Your task to perform on an android device: delete the emails in spam in the gmail app Image 0: 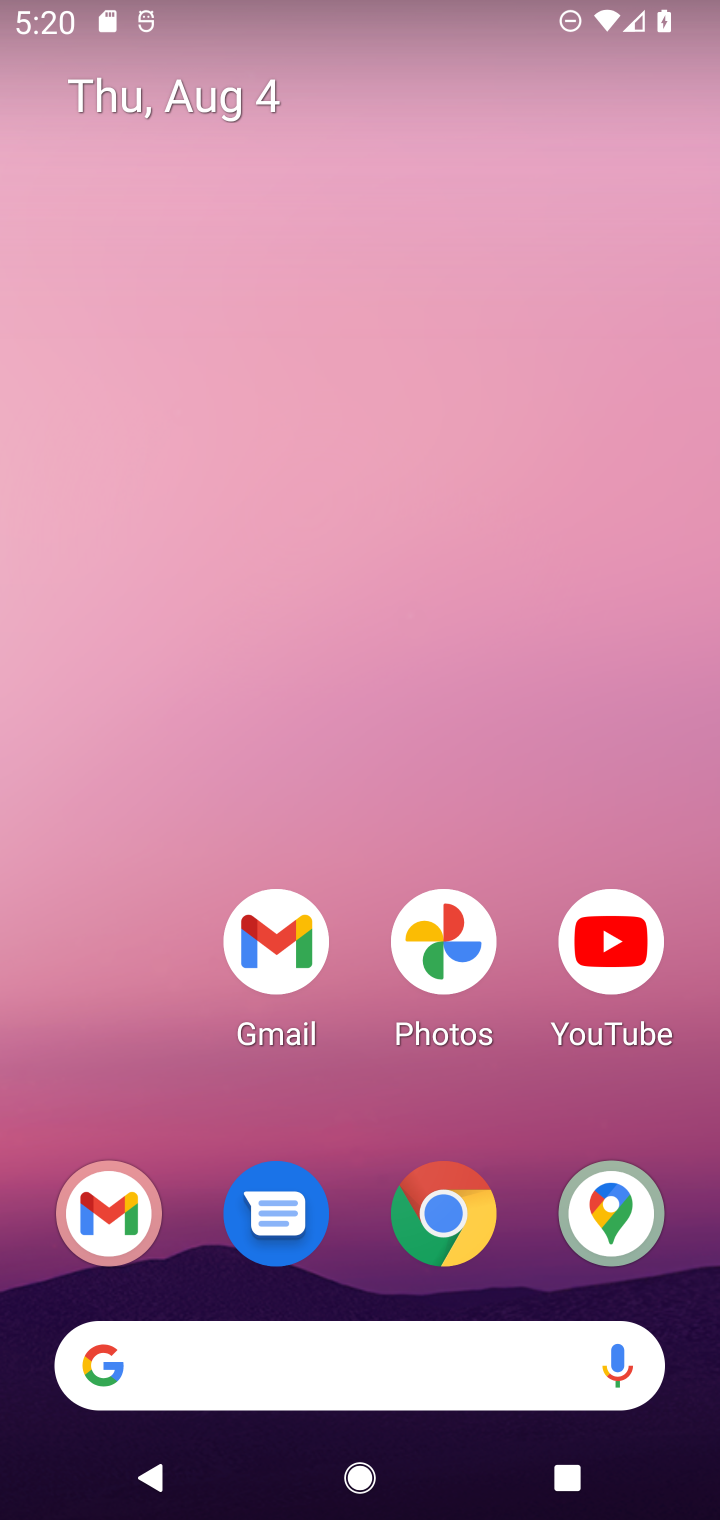
Step 0: press home button
Your task to perform on an android device: delete the emails in spam in the gmail app Image 1: 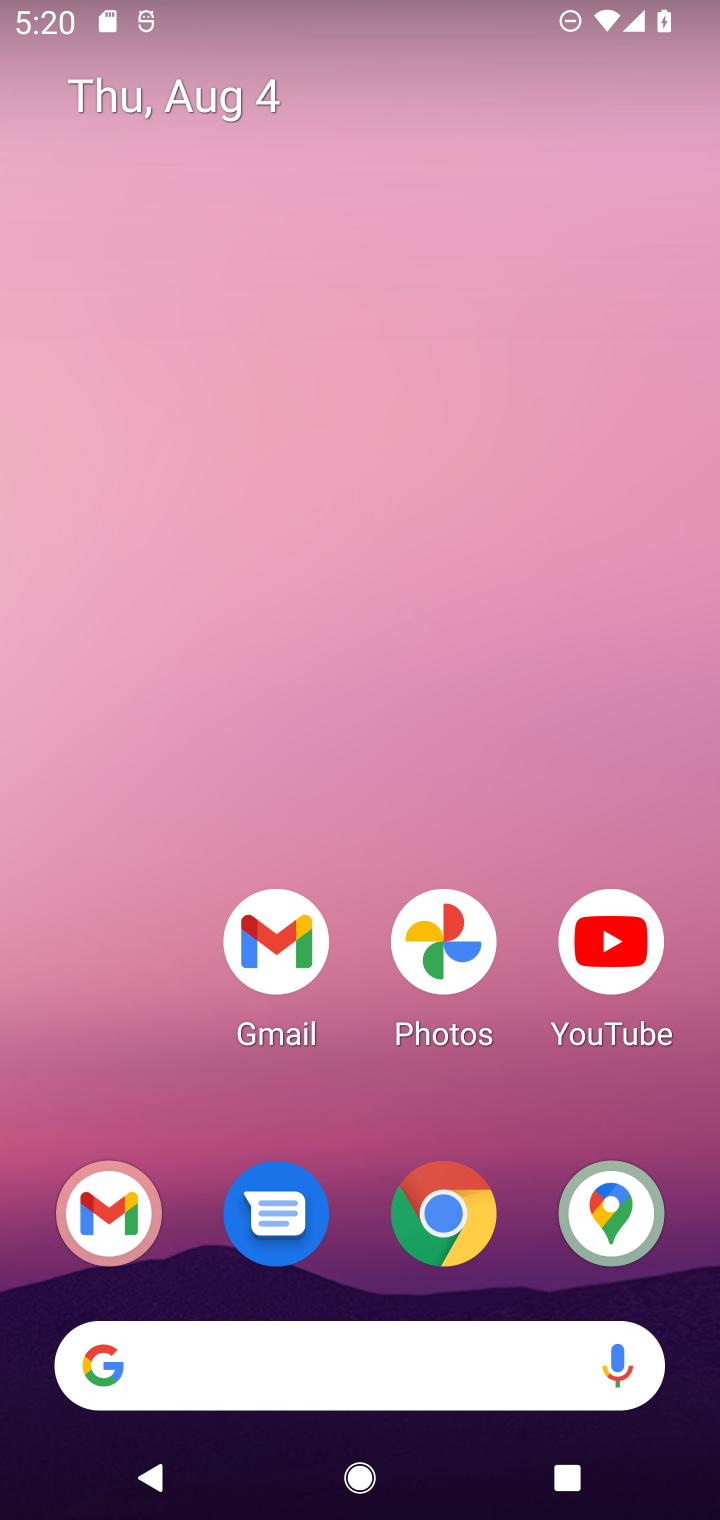
Step 1: drag from (169, 1108) to (140, 403)
Your task to perform on an android device: delete the emails in spam in the gmail app Image 2: 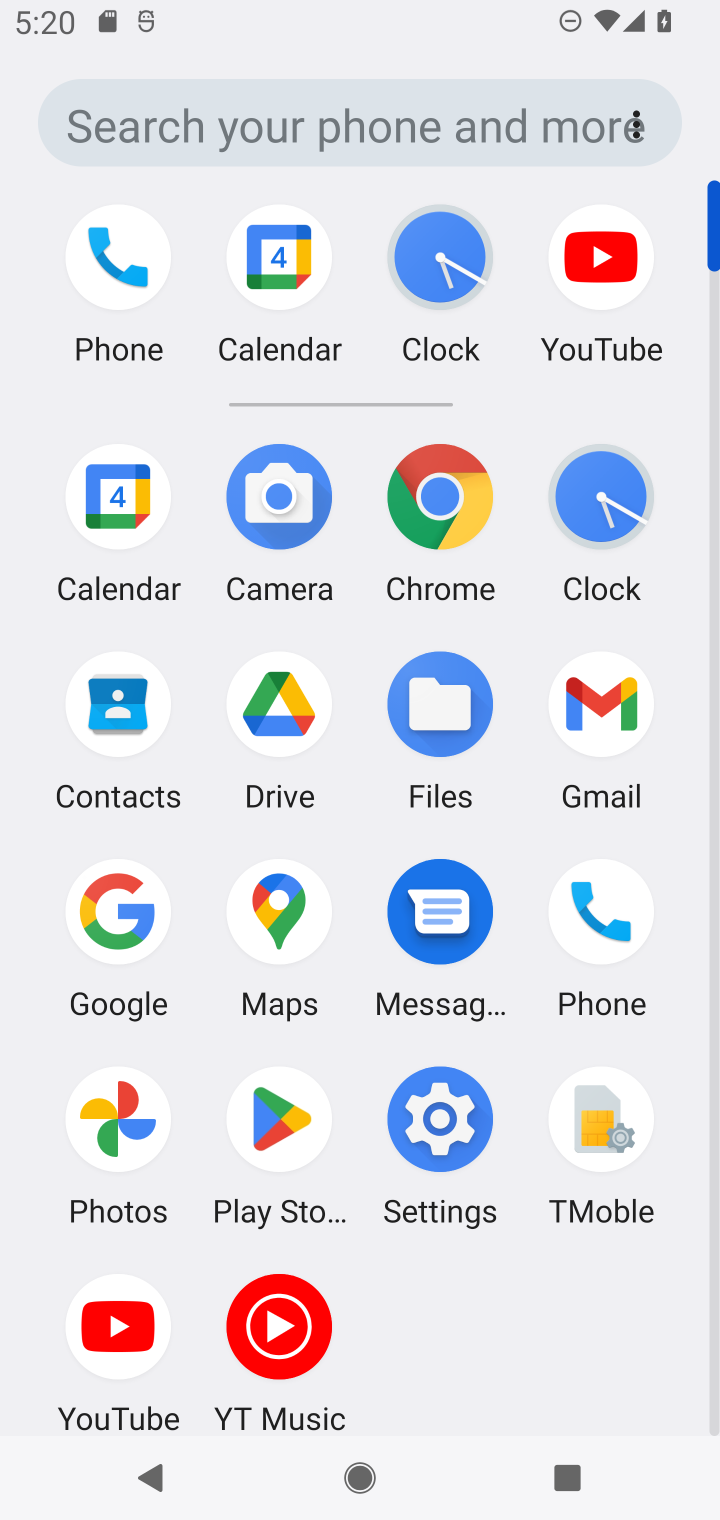
Step 2: click (604, 714)
Your task to perform on an android device: delete the emails in spam in the gmail app Image 3: 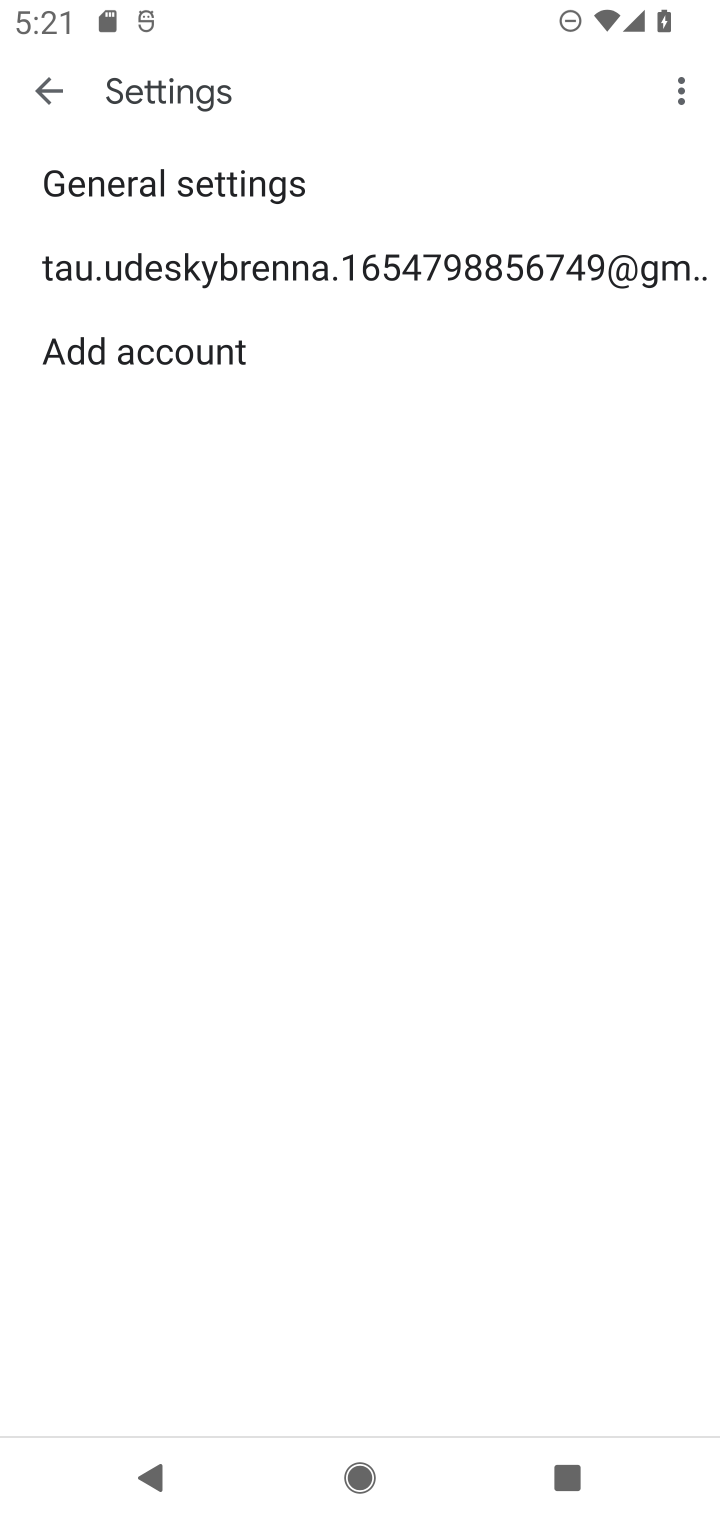
Step 3: press back button
Your task to perform on an android device: delete the emails in spam in the gmail app Image 4: 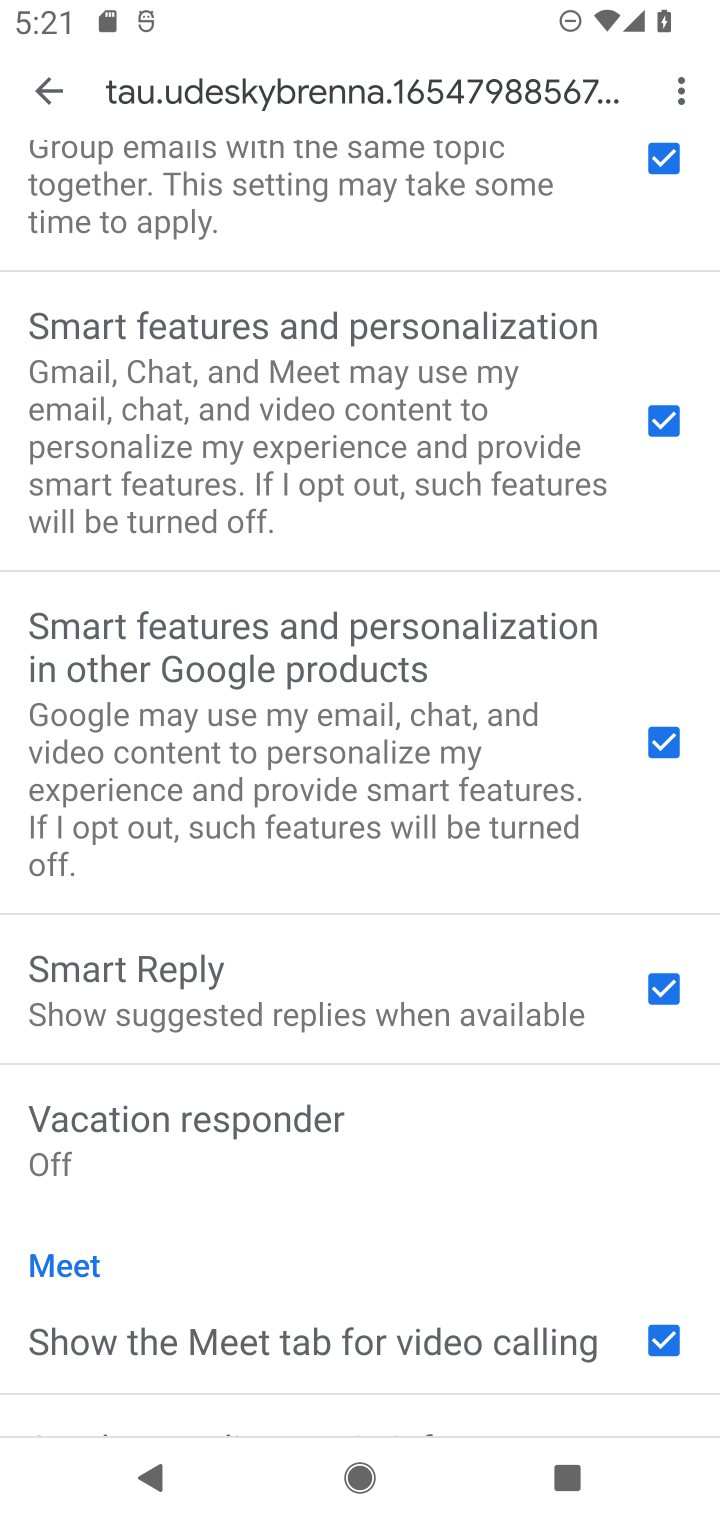
Step 4: press back button
Your task to perform on an android device: delete the emails in spam in the gmail app Image 5: 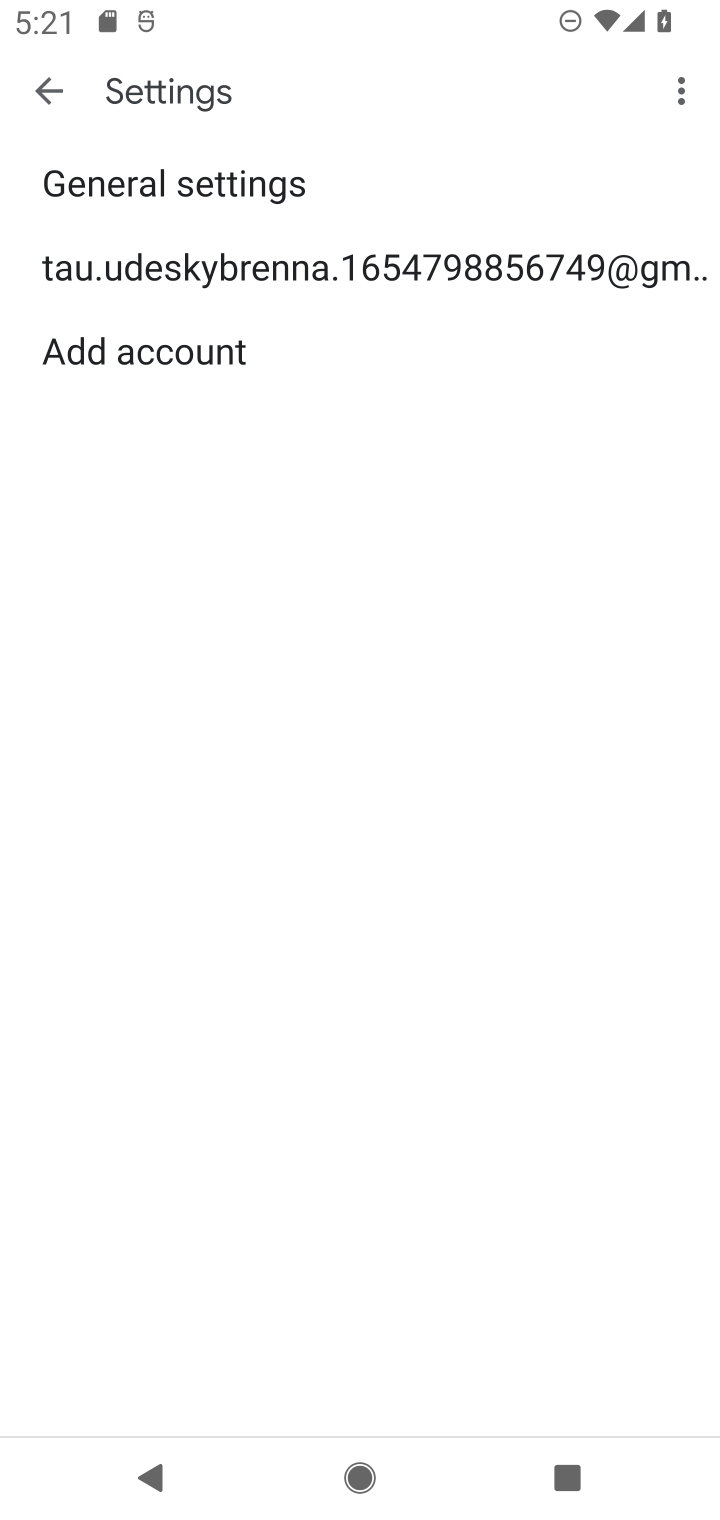
Step 5: press back button
Your task to perform on an android device: delete the emails in spam in the gmail app Image 6: 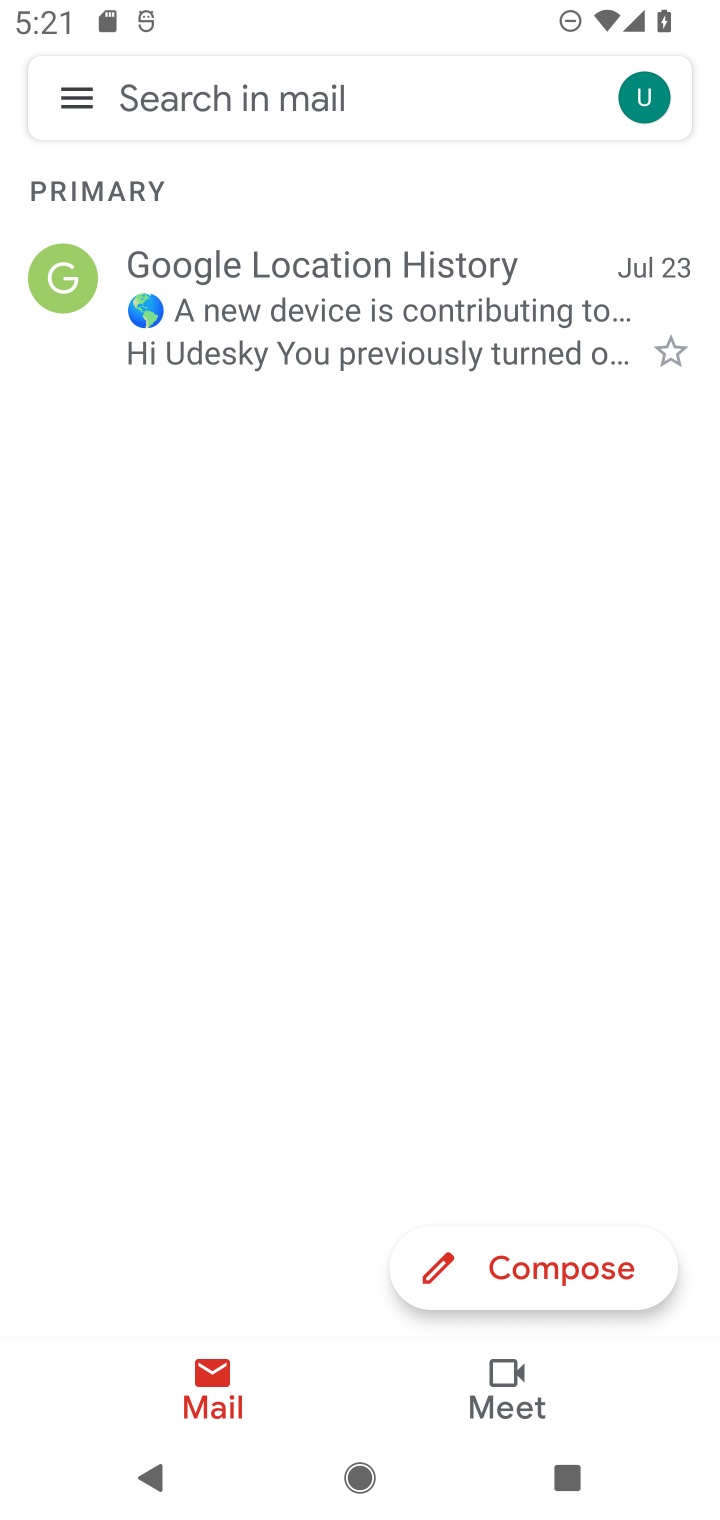
Step 6: click (76, 103)
Your task to perform on an android device: delete the emails in spam in the gmail app Image 7: 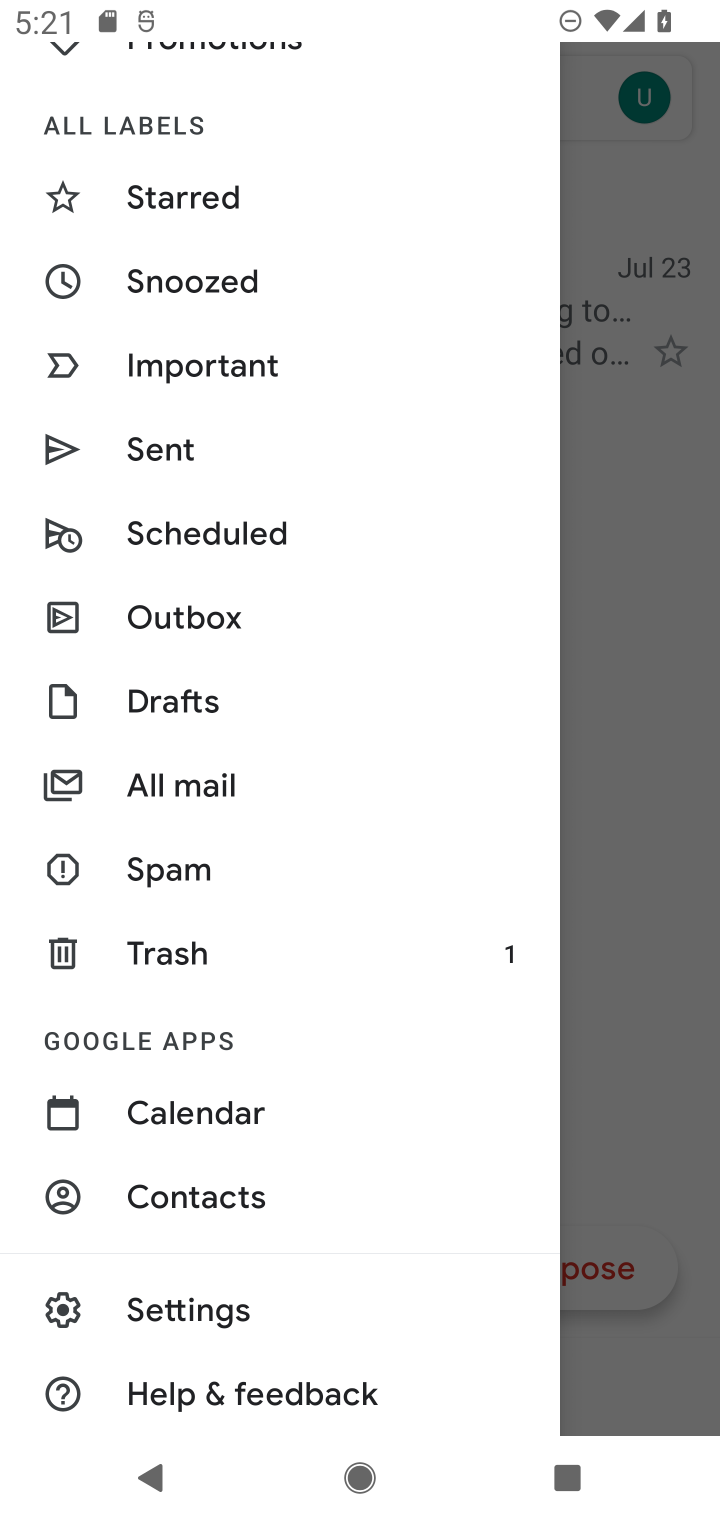
Step 7: click (200, 871)
Your task to perform on an android device: delete the emails in spam in the gmail app Image 8: 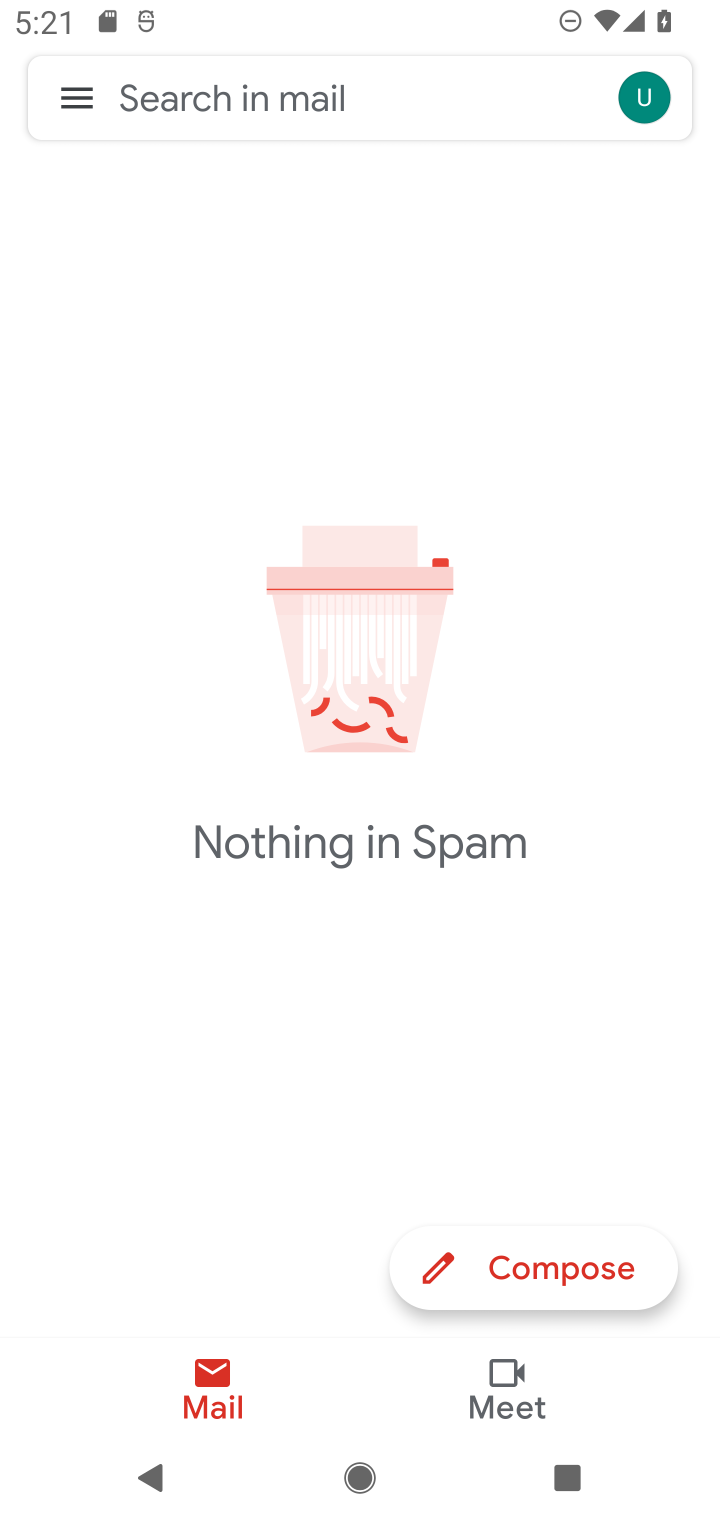
Step 8: task complete